Your task to perform on an android device: toggle notification dots Image 0: 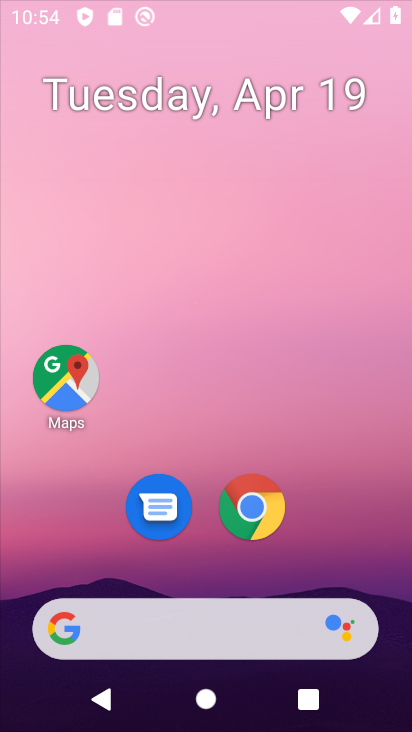
Step 0: drag from (288, 690) to (224, 119)
Your task to perform on an android device: toggle notification dots Image 1: 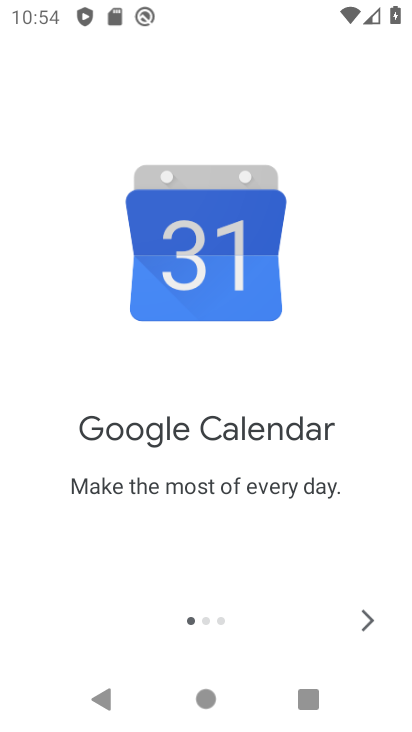
Step 1: press back button
Your task to perform on an android device: toggle notification dots Image 2: 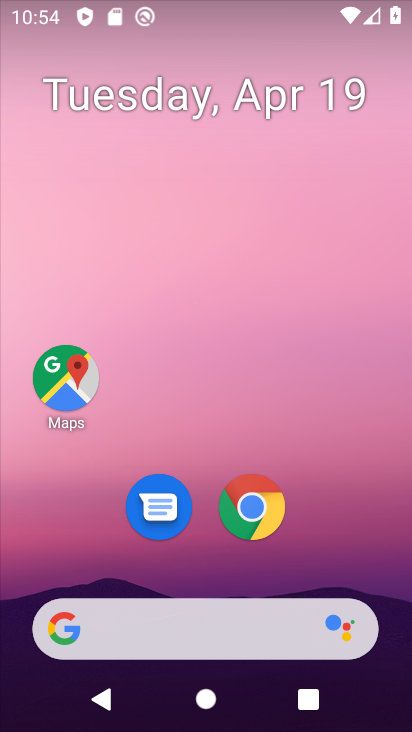
Step 2: drag from (271, 693) to (199, 26)
Your task to perform on an android device: toggle notification dots Image 3: 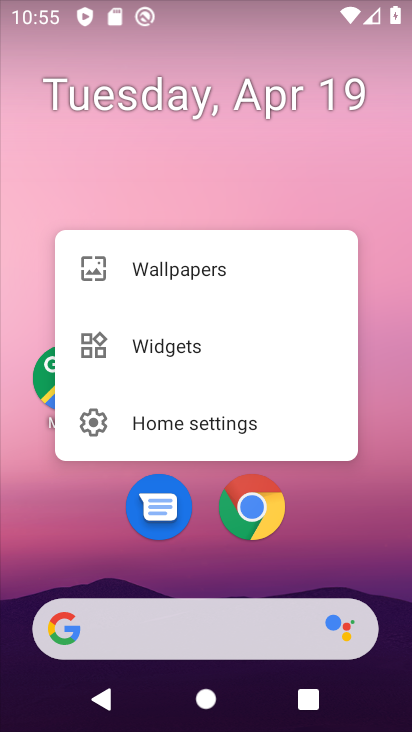
Step 3: click (55, 250)
Your task to perform on an android device: toggle notification dots Image 4: 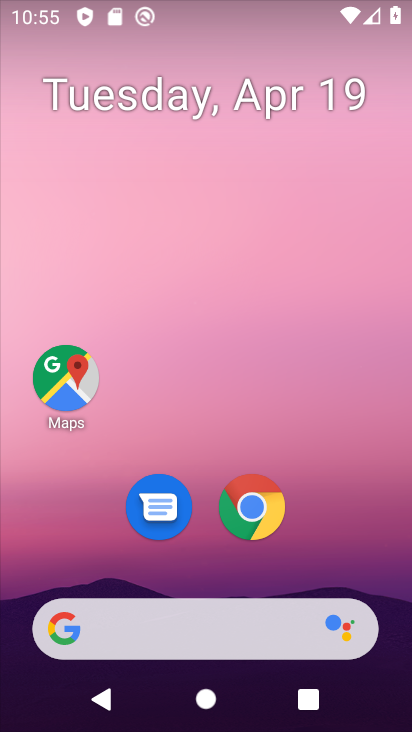
Step 4: drag from (264, 597) to (173, 62)
Your task to perform on an android device: toggle notification dots Image 5: 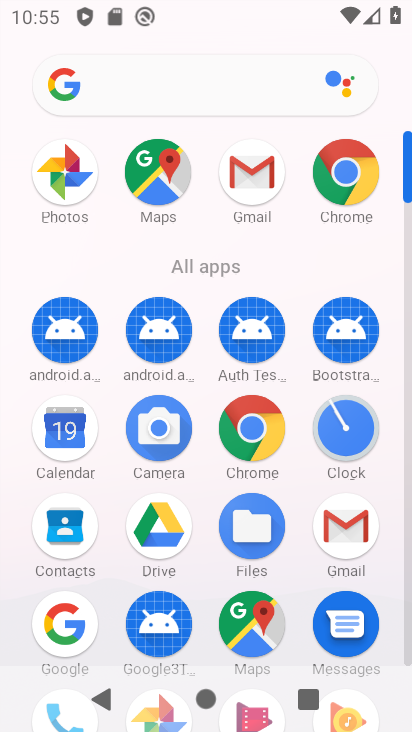
Step 5: drag from (188, 517) to (203, 160)
Your task to perform on an android device: toggle notification dots Image 6: 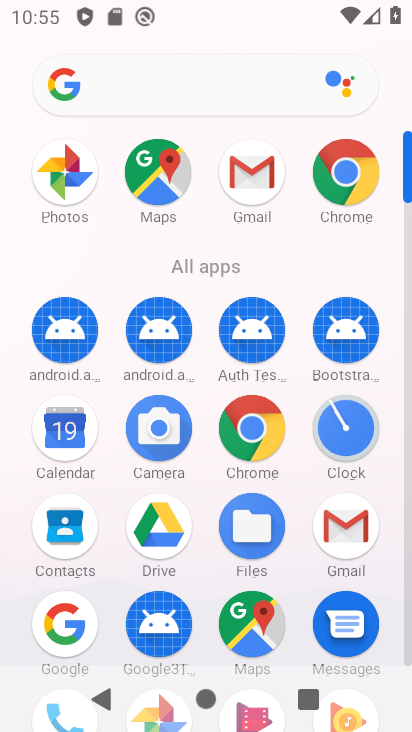
Step 6: drag from (214, 498) to (220, 227)
Your task to perform on an android device: toggle notification dots Image 7: 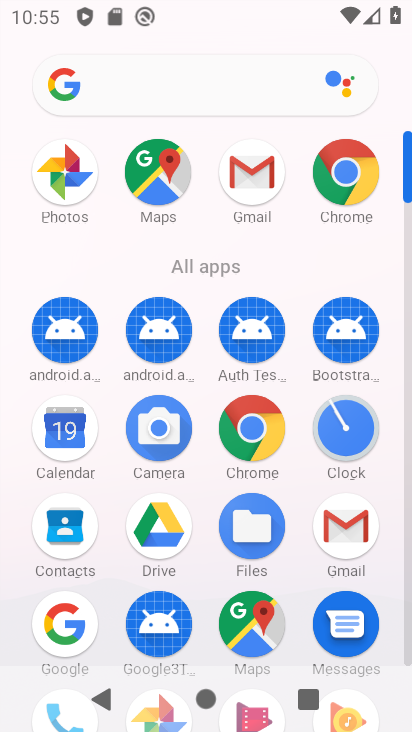
Step 7: drag from (202, 461) to (177, 187)
Your task to perform on an android device: toggle notification dots Image 8: 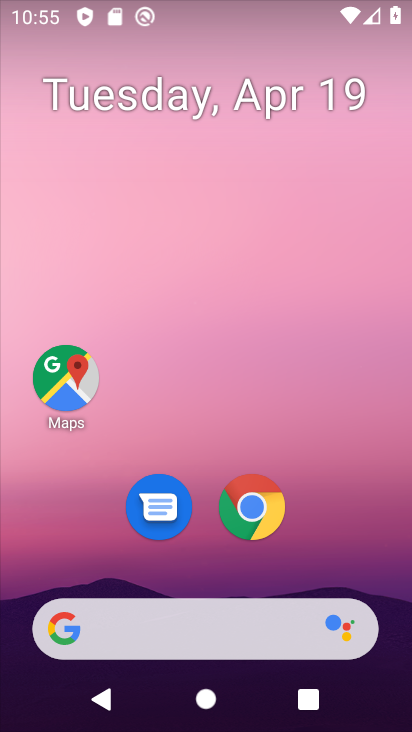
Step 8: drag from (231, 695) to (212, 132)
Your task to perform on an android device: toggle notification dots Image 9: 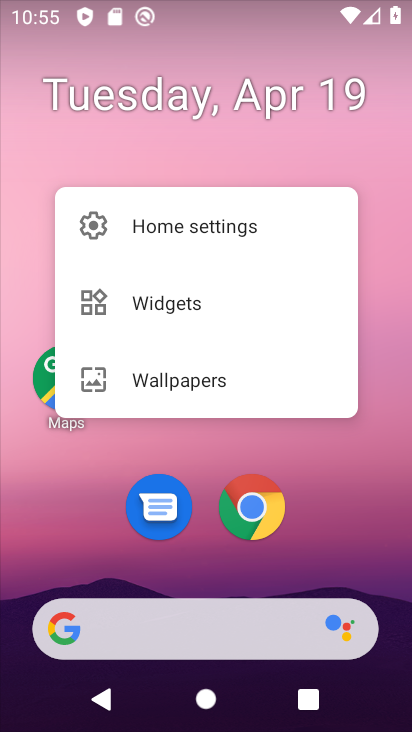
Step 9: drag from (358, 452) to (273, 43)
Your task to perform on an android device: toggle notification dots Image 10: 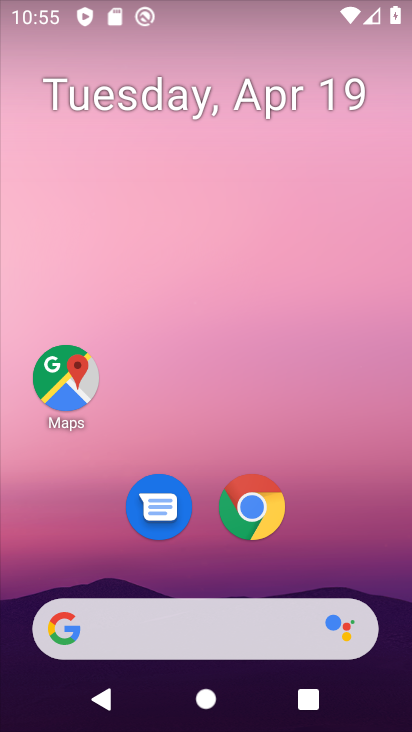
Step 10: drag from (370, 441) to (127, 49)
Your task to perform on an android device: toggle notification dots Image 11: 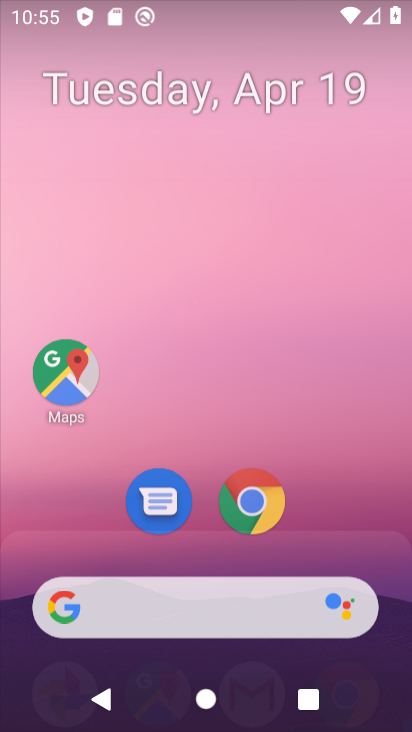
Step 11: drag from (250, 308) to (232, 7)
Your task to perform on an android device: toggle notification dots Image 12: 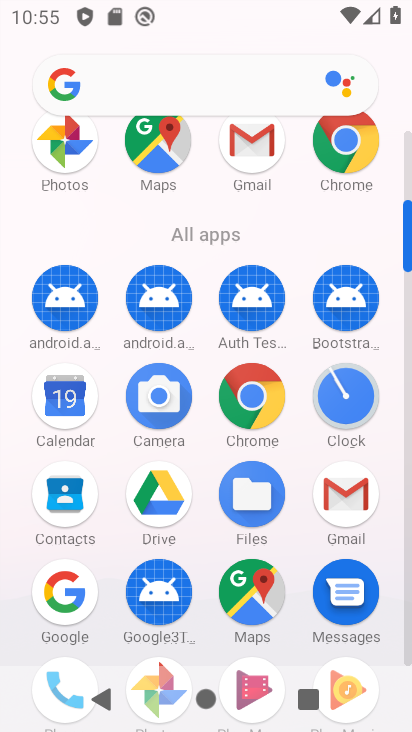
Step 12: drag from (384, 611) to (329, 262)
Your task to perform on an android device: toggle notification dots Image 13: 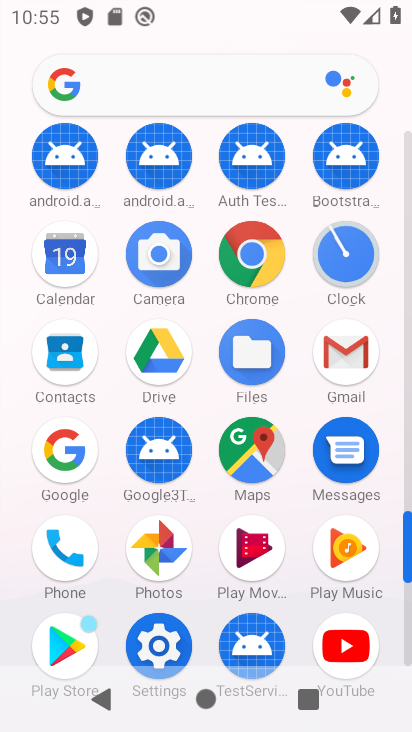
Step 13: drag from (172, 636) to (131, 641)
Your task to perform on an android device: toggle notification dots Image 14: 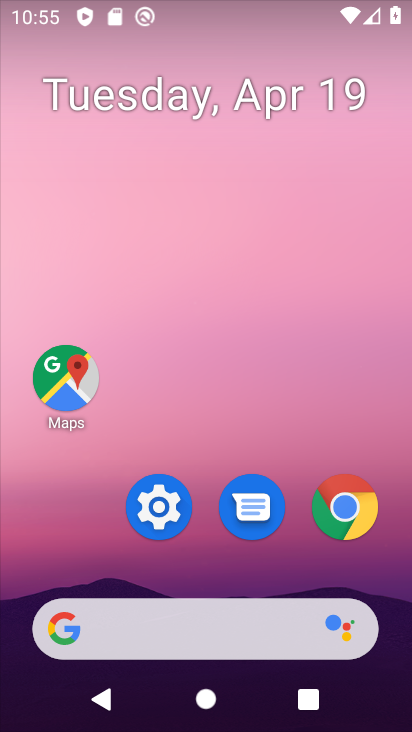
Step 14: click (149, 520)
Your task to perform on an android device: toggle notification dots Image 15: 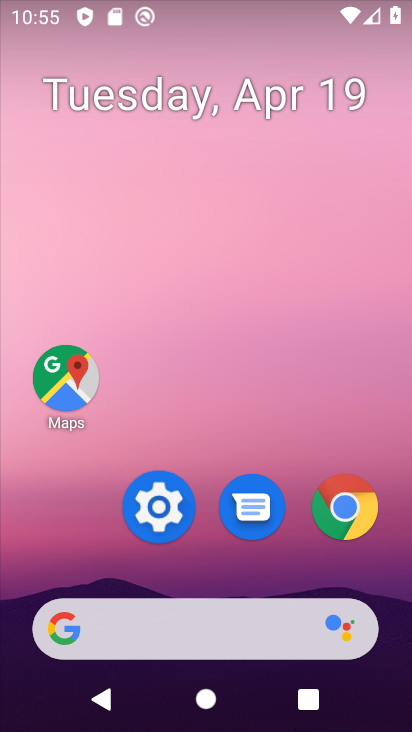
Step 15: click (151, 518)
Your task to perform on an android device: toggle notification dots Image 16: 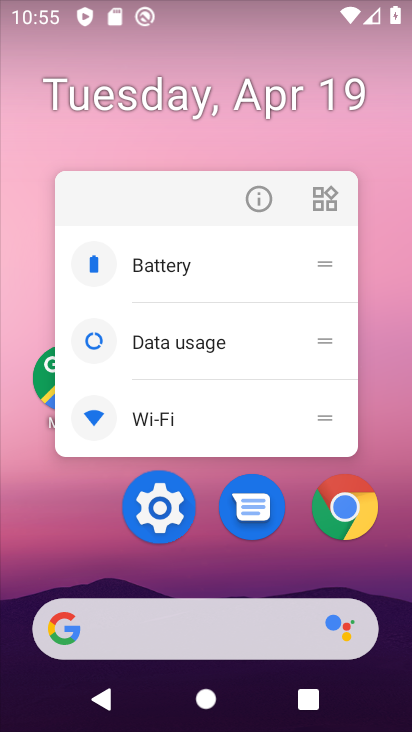
Step 16: click (156, 497)
Your task to perform on an android device: toggle notification dots Image 17: 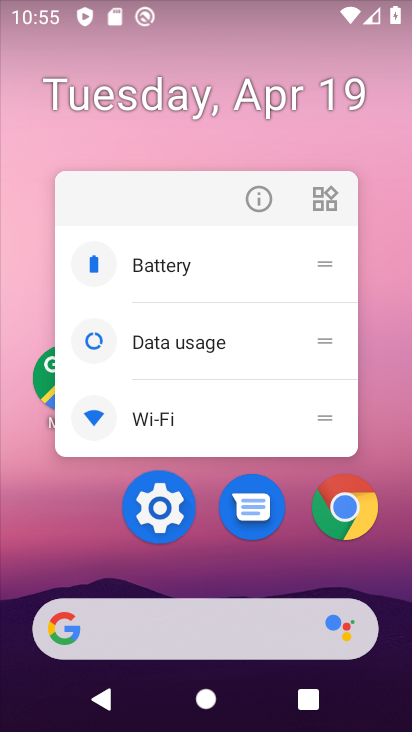
Step 17: drag from (236, 544) to (39, 1)
Your task to perform on an android device: toggle notification dots Image 18: 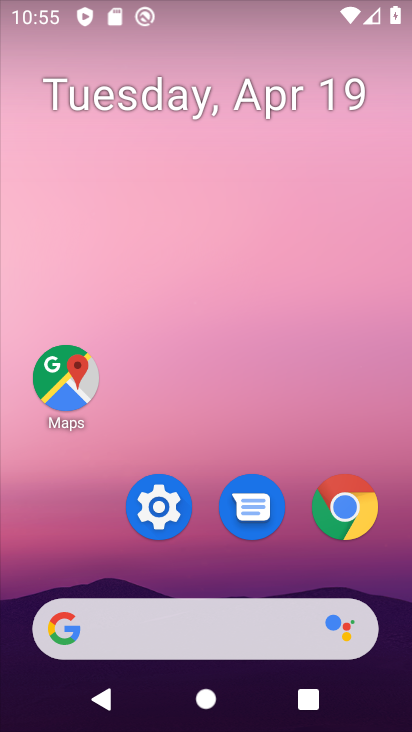
Step 18: drag from (182, 258) to (153, 157)
Your task to perform on an android device: toggle notification dots Image 19: 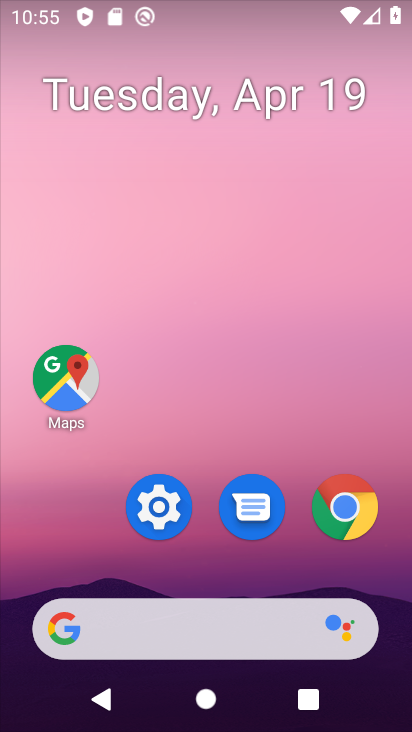
Step 19: drag from (222, 491) to (122, 109)
Your task to perform on an android device: toggle notification dots Image 20: 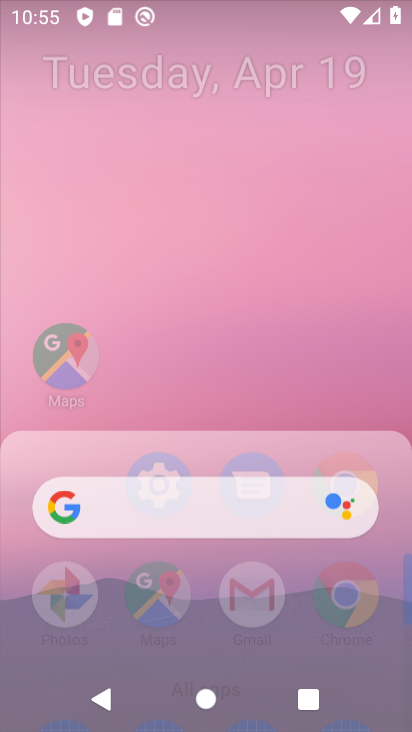
Step 20: drag from (189, 457) to (69, 0)
Your task to perform on an android device: toggle notification dots Image 21: 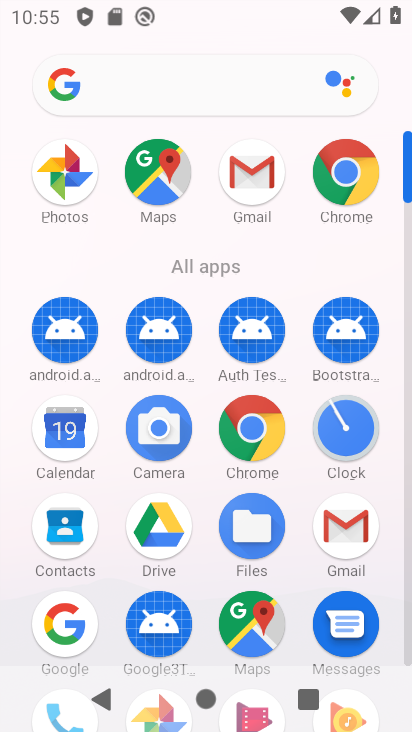
Step 21: drag from (167, 631) to (122, 18)
Your task to perform on an android device: toggle notification dots Image 22: 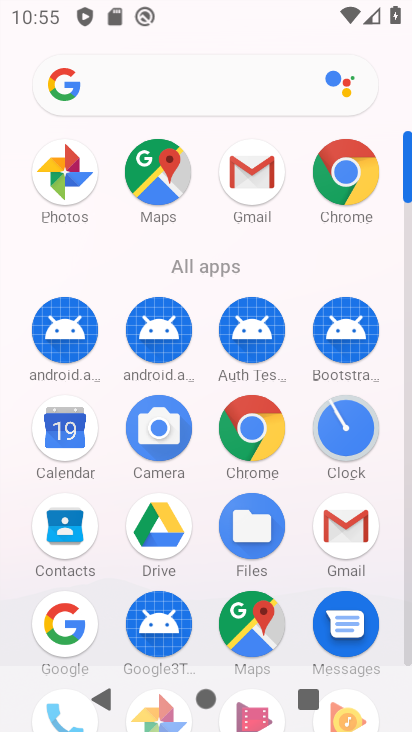
Step 22: drag from (163, 500) to (65, 147)
Your task to perform on an android device: toggle notification dots Image 23: 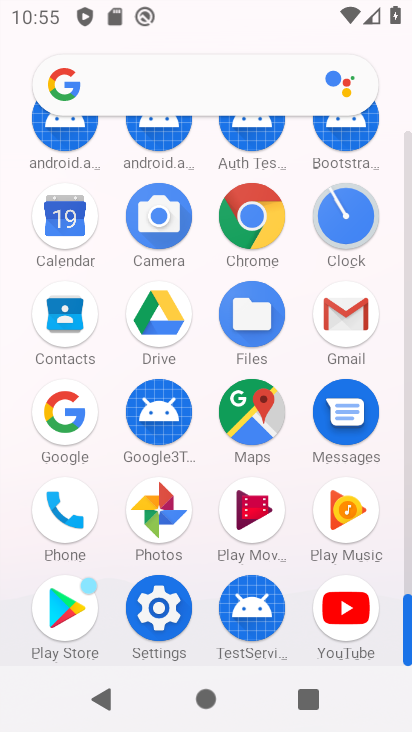
Step 23: drag from (186, 432) to (209, 152)
Your task to perform on an android device: toggle notification dots Image 24: 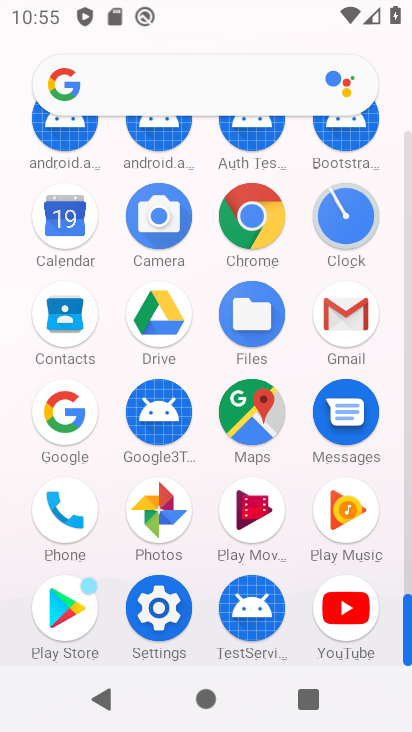
Step 24: drag from (154, 605) to (130, 557)
Your task to perform on an android device: toggle notification dots Image 25: 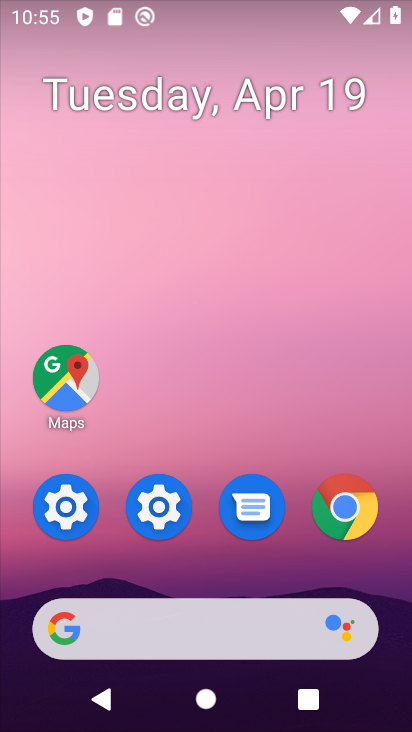
Step 25: click (55, 512)
Your task to perform on an android device: toggle notification dots Image 26: 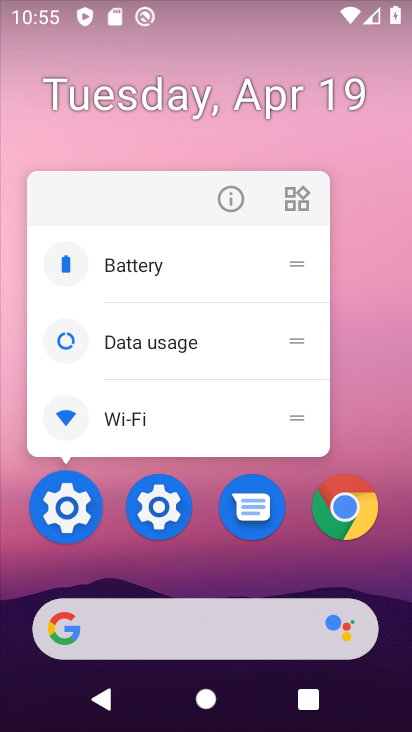
Step 26: click (58, 509)
Your task to perform on an android device: toggle notification dots Image 27: 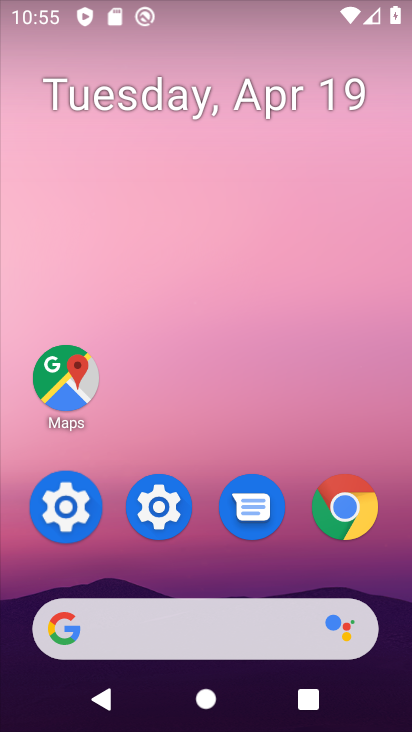
Step 27: click (60, 500)
Your task to perform on an android device: toggle notification dots Image 28: 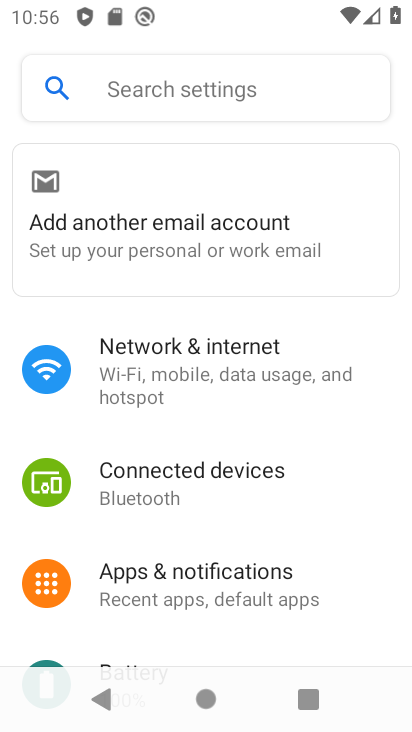
Step 28: click (158, 592)
Your task to perform on an android device: toggle notification dots Image 29: 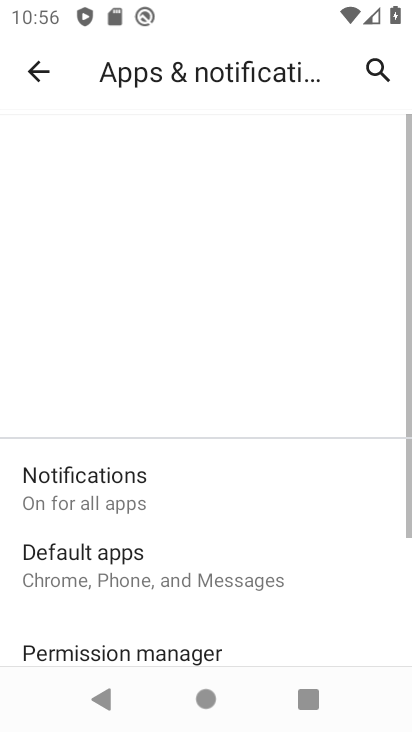
Step 29: click (168, 586)
Your task to perform on an android device: toggle notification dots Image 30: 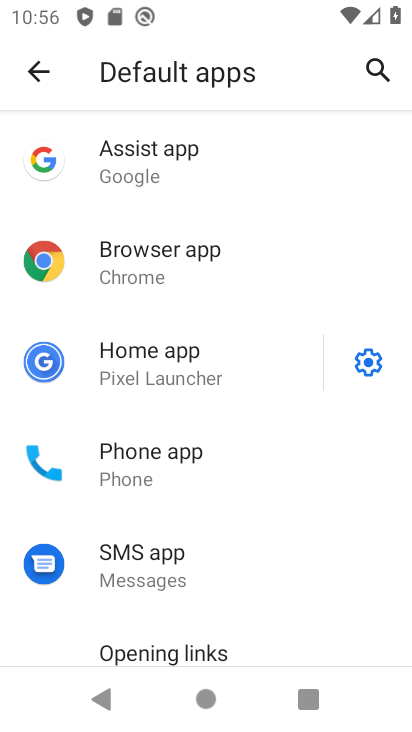
Step 30: click (29, 69)
Your task to perform on an android device: toggle notification dots Image 31: 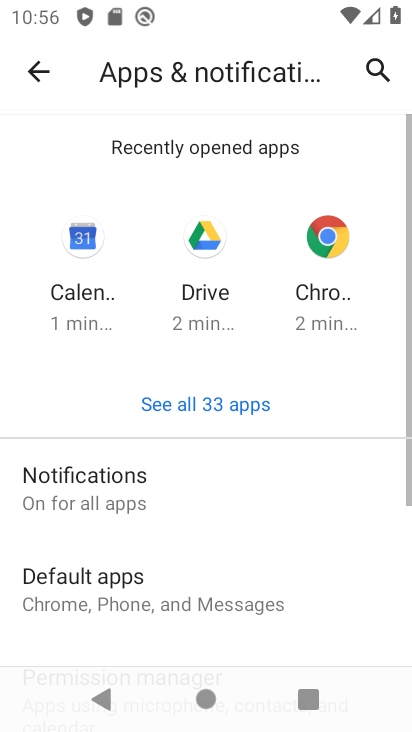
Step 31: drag from (192, 526) to (213, 159)
Your task to perform on an android device: toggle notification dots Image 32: 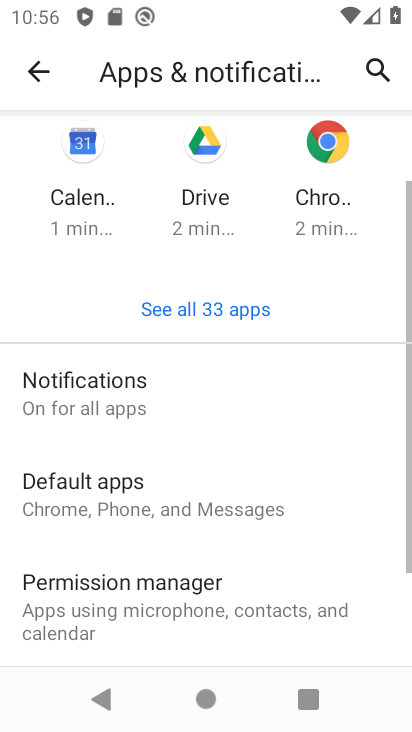
Step 32: drag from (327, 169) to (343, 106)
Your task to perform on an android device: toggle notification dots Image 33: 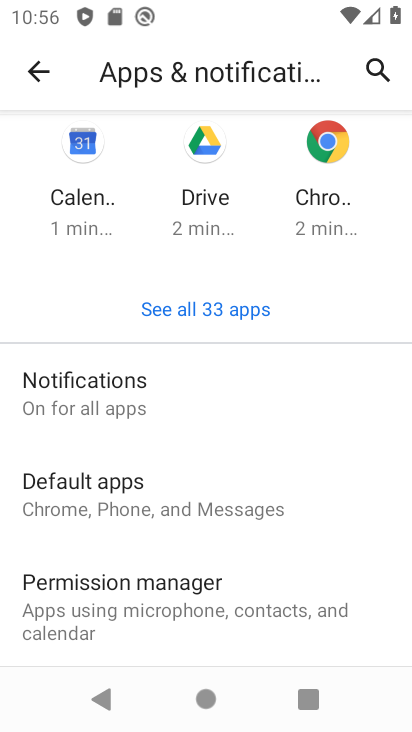
Step 33: click (85, 393)
Your task to perform on an android device: toggle notification dots Image 34: 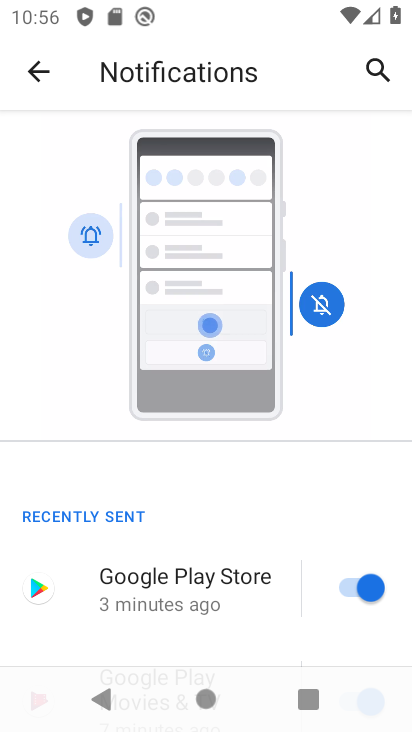
Step 34: drag from (260, 559) to (337, 84)
Your task to perform on an android device: toggle notification dots Image 35: 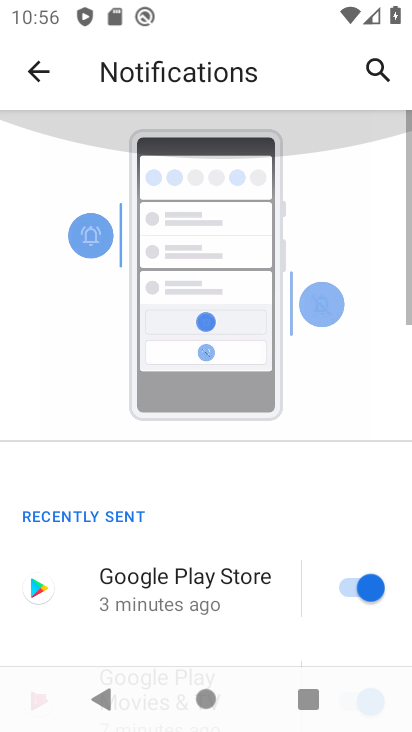
Step 35: drag from (294, 320) to (198, 57)
Your task to perform on an android device: toggle notification dots Image 36: 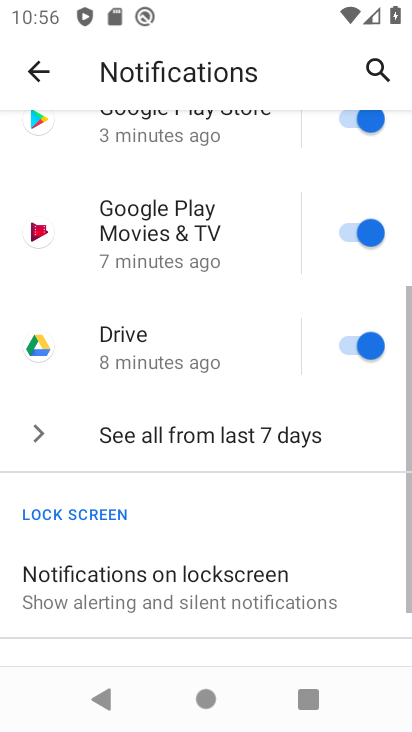
Step 36: drag from (240, 341) to (284, 90)
Your task to perform on an android device: toggle notification dots Image 37: 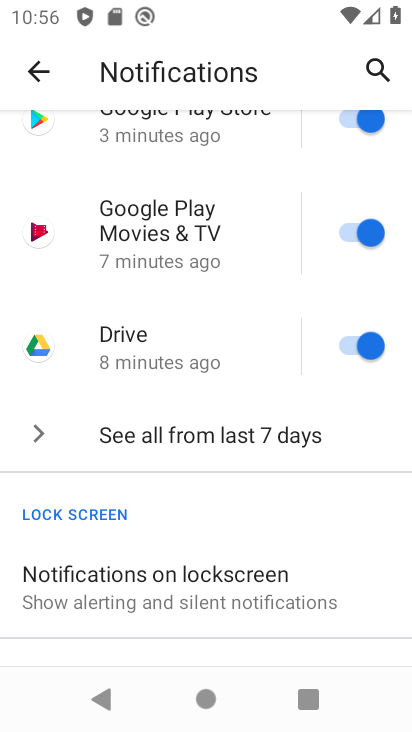
Step 37: drag from (185, 516) to (141, 56)
Your task to perform on an android device: toggle notification dots Image 38: 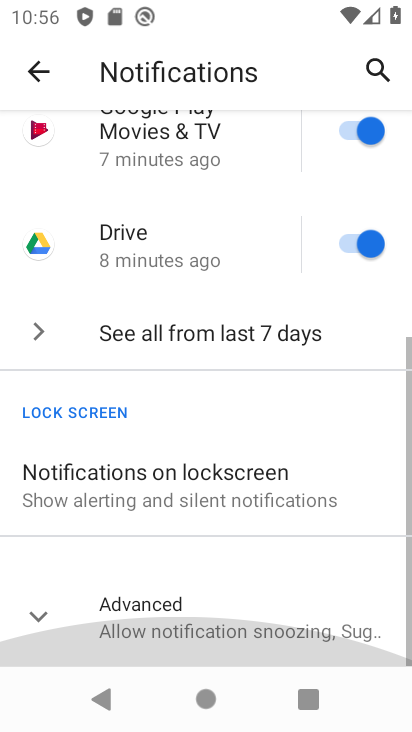
Step 38: drag from (188, 455) to (191, 232)
Your task to perform on an android device: toggle notification dots Image 39: 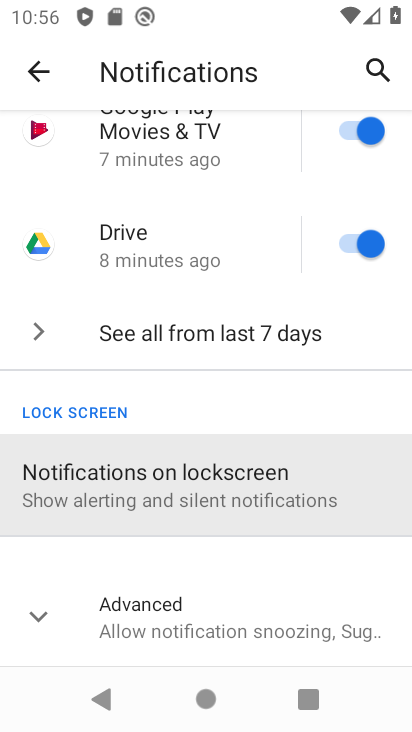
Step 39: drag from (197, 228) to (277, 259)
Your task to perform on an android device: toggle notification dots Image 40: 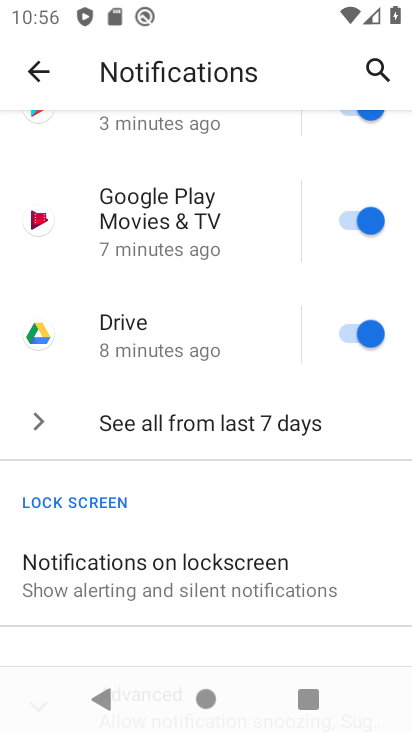
Step 40: drag from (205, 351) to (212, 150)
Your task to perform on an android device: toggle notification dots Image 41: 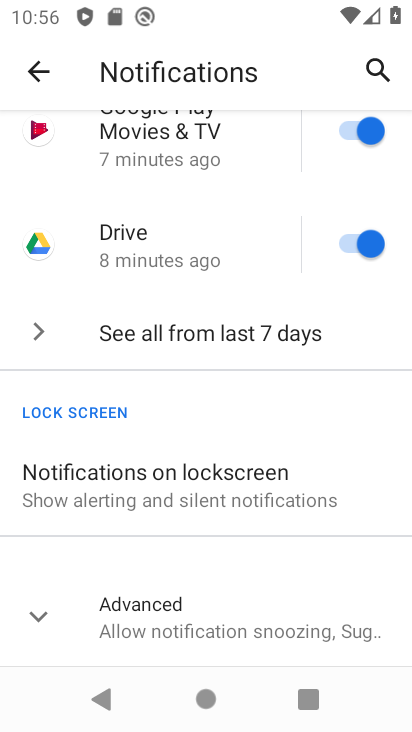
Step 41: click (151, 614)
Your task to perform on an android device: toggle notification dots Image 42: 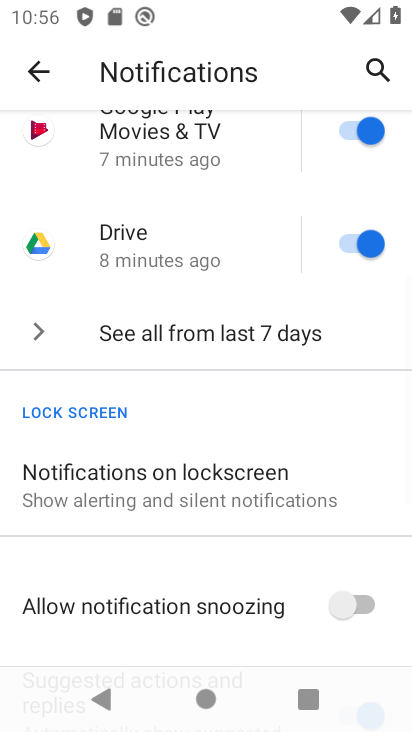
Step 42: drag from (244, 580) to (231, 216)
Your task to perform on an android device: toggle notification dots Image 43: 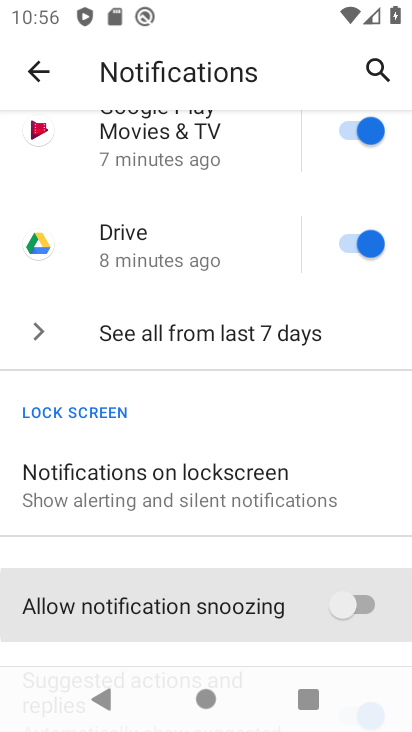
Step 43: drag from (227, 454) to (180, 95)
Your task to perform on an android device: toggle notification dots Image 44: 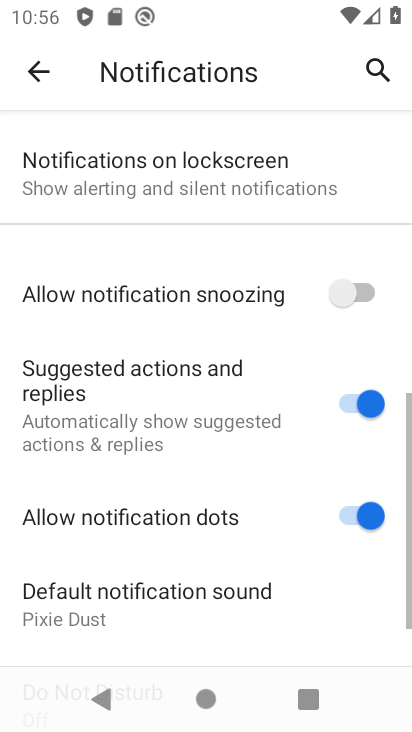
Step 44: drag from (250, 323) to (299, 62)
Your task to perform on an android device: toggle notification dots Image 45: 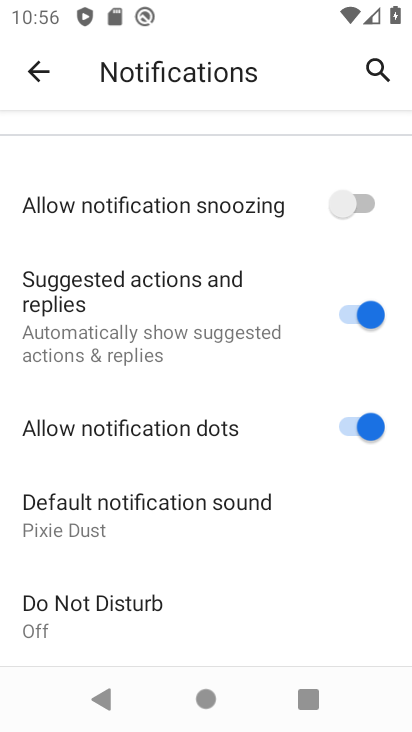
Step 45: click (370, 422)
Your task to perform on an android device: toggle notification dots Image 46: 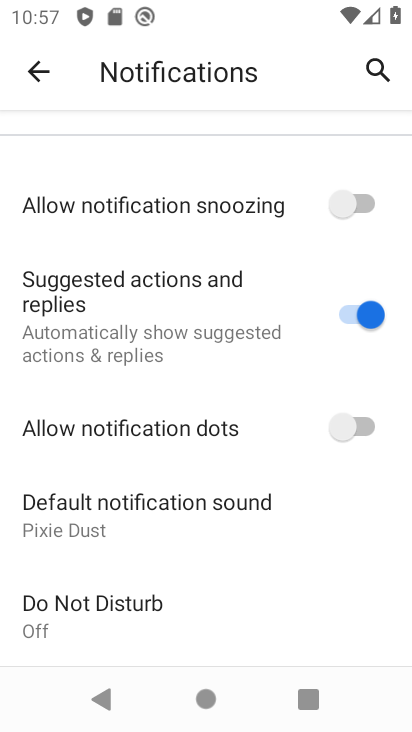
Step 46: click (352, 427)
Your task to perform on an android device: toggle notification dots Image 47: 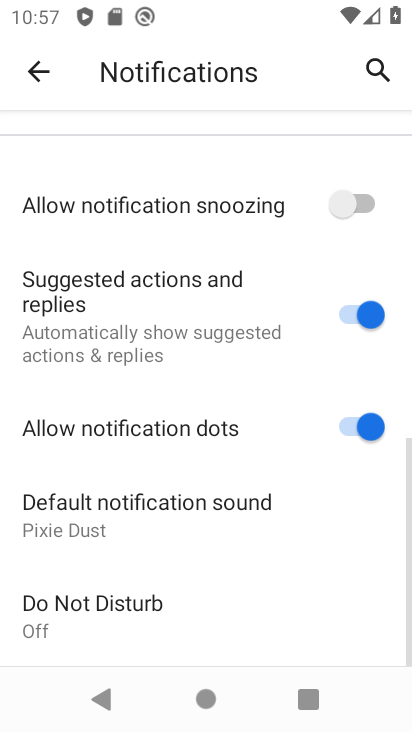
Step 47: task complete